Your task to perform on an android device: add a contact in the contacts app Image 0: 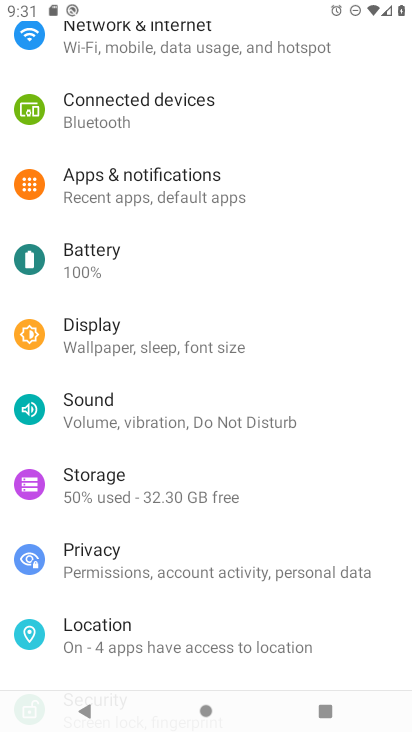
Step 0: press home button
Your task to perform on an android device: add a contact in the contacts app Image 1: 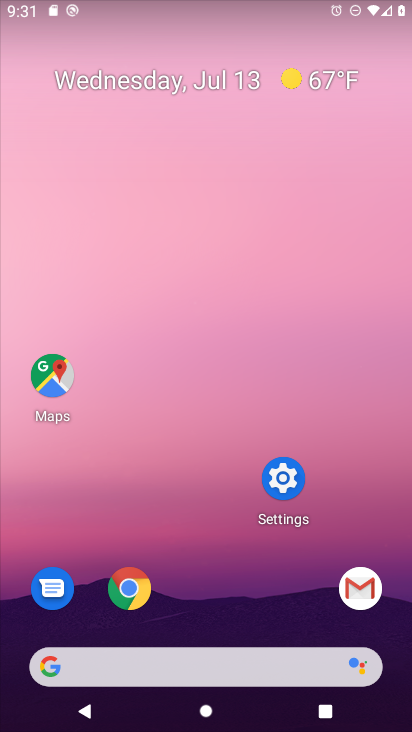
Step 1: drag from (267, 665) to (97, 153)
Your task to perform on an android device: add a contact in the contacts app Image 2: 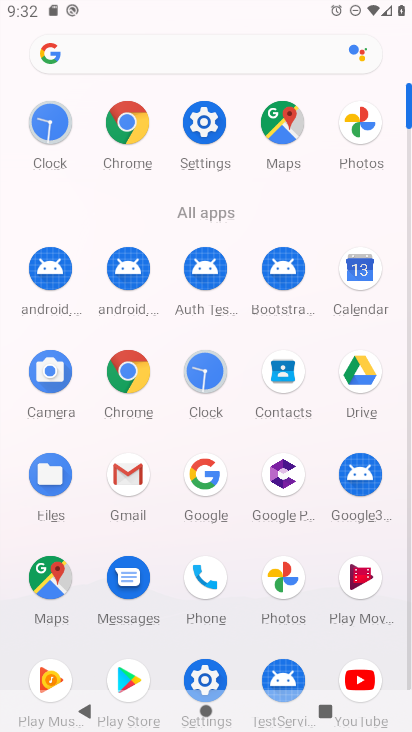
Step 2: click (196, 579)
Your task to perform on an android device: add a contact in the contacts app Image 3: 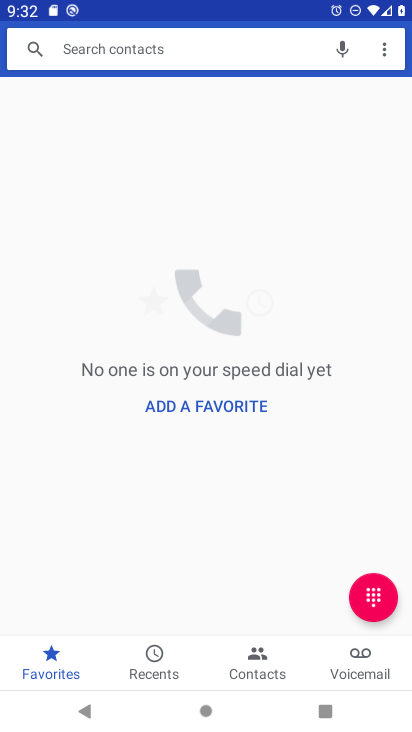
Step 3: click (263, 655)
Your task to perform on an android device: add a contact in the contacts app Image 4: 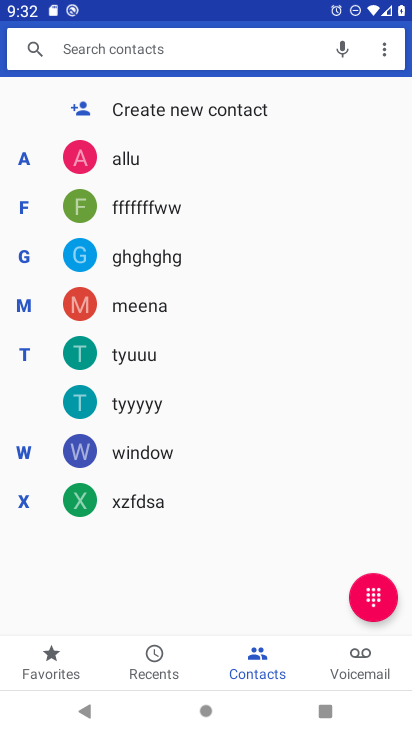
Step 4: click (163, 110)
Your task to perform on an android device: add a contact in the contacts app Image 5: 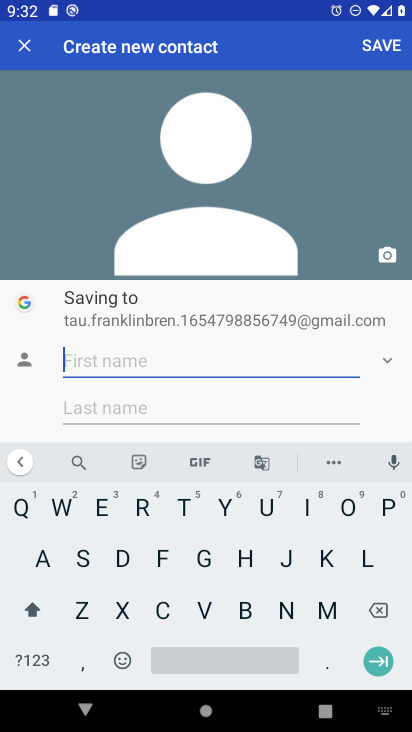
Step 5: click (131, 505)
Your task to perform on an android device: add a contact in the contacts app Image 6: 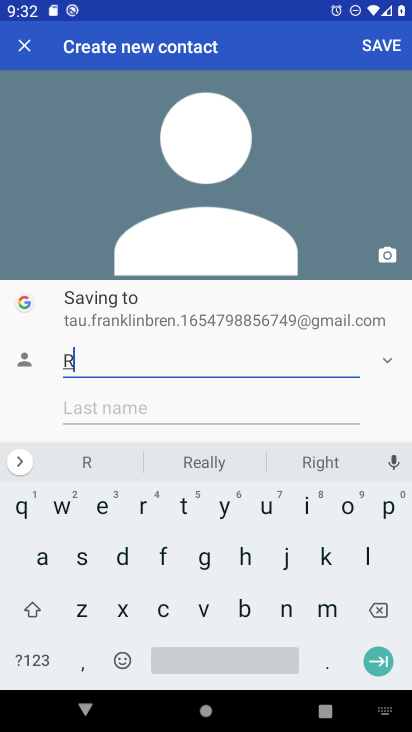
Step 6: click (118, 610)
Your task to perform on an android device: add a contact in the contacts app Image 7: 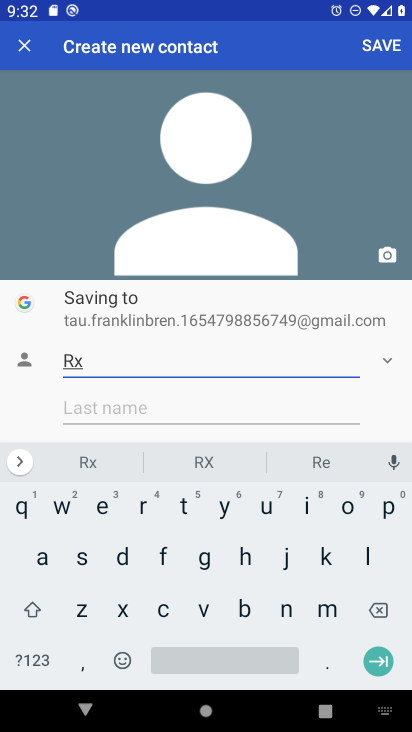
Step 7: drag from (121, 421) to (113, 312)
Your task to perform on an android device: add a contact in the contacts app Image 8: 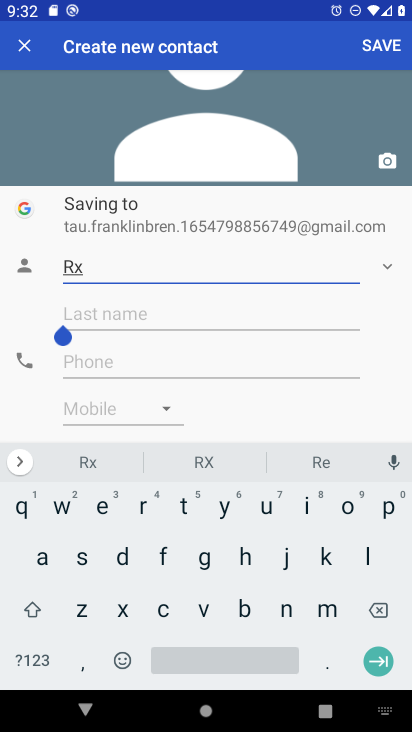
Step 8: click (101, 367)
Your task to perform on an android device: add a contact in the contacts app Image 9: 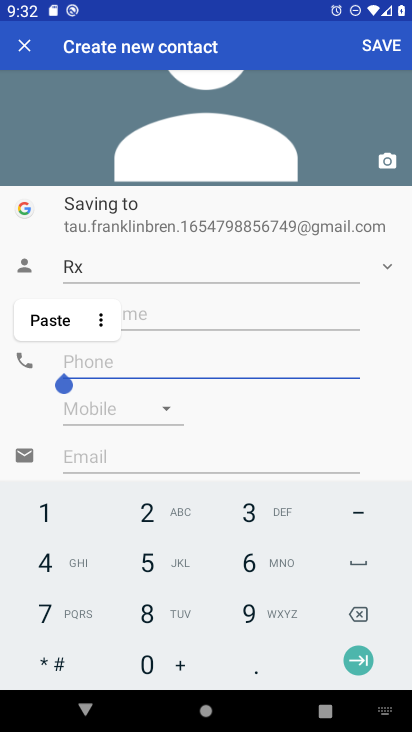
Step 9: click (164, 567)
Your task to perform on an android device: add a contact in the contacts app Image 10: 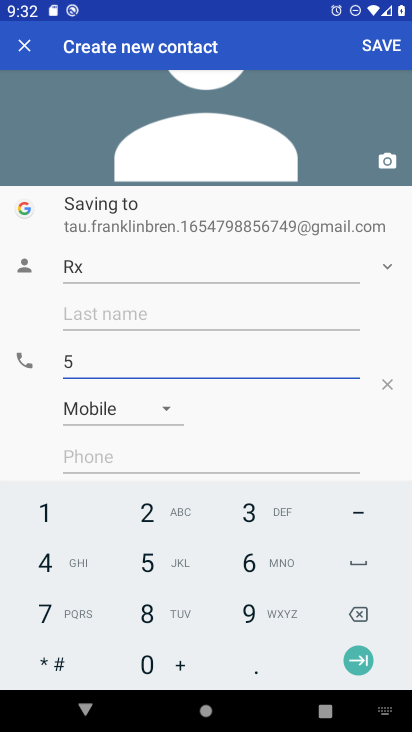
Step 10: click (70, 550)
Your task to perform on an android device: add a contact in the contacts app Image 11: 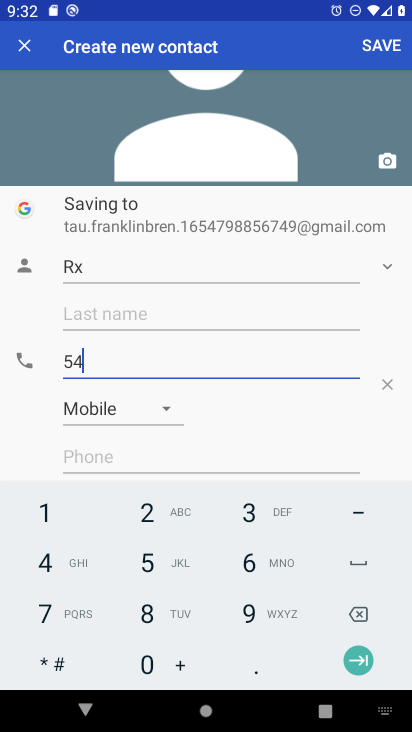
Step 11: click (44, 510)
Your task to perform on an android device: add a contact in the contacts app Image 12: 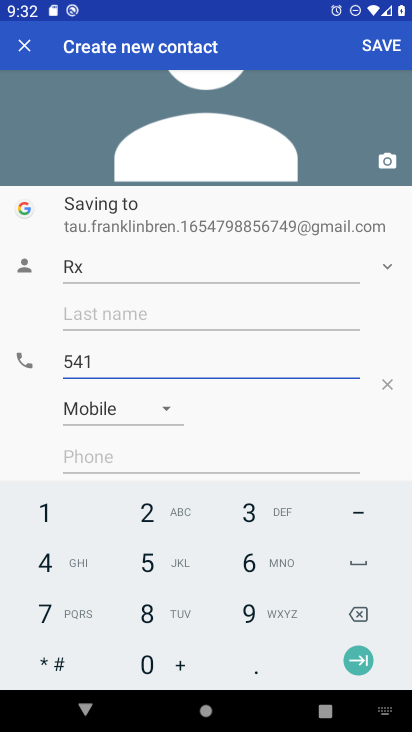
Step 12: click (267, 535)
Your task to perform on an android device: add a contact in the contacts app Image 13: 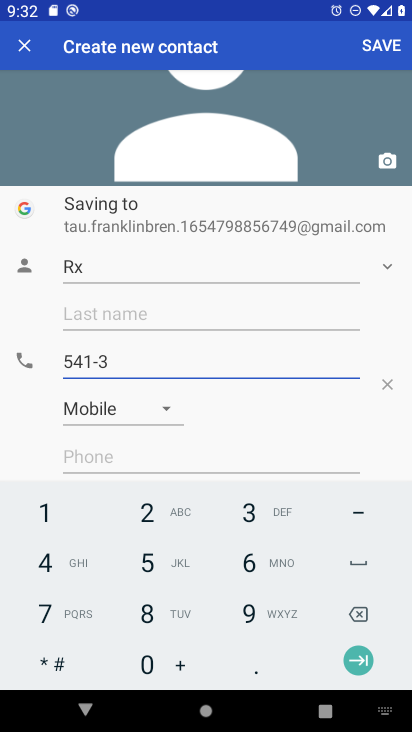
Step 13: click (252, 619)
Your task to perform on an android device: add a contact in the contacts app Image 14: 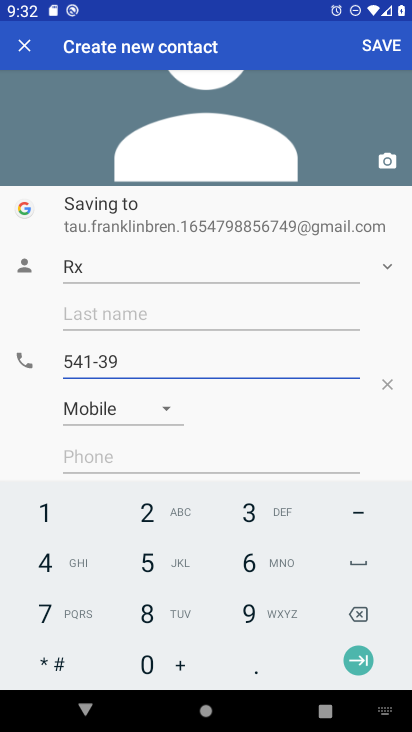
Step 14: click (191, 624)
Your task to perform on an android device: add a contact in the contacts app Image 15: 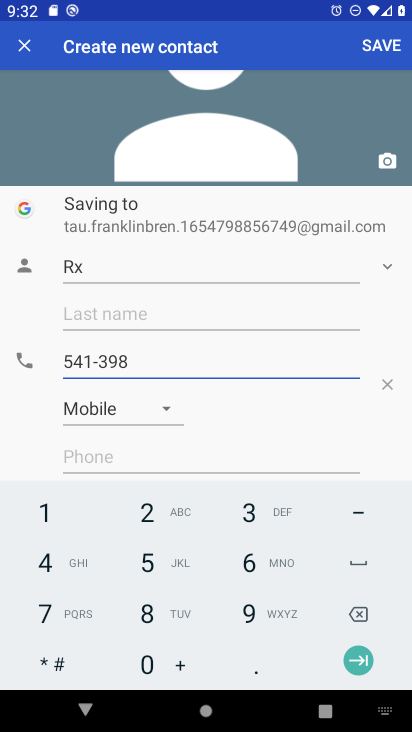
Step 15: click (250, 517)
Your task to perform on an android device: add a contact in the contacts app Image 16: 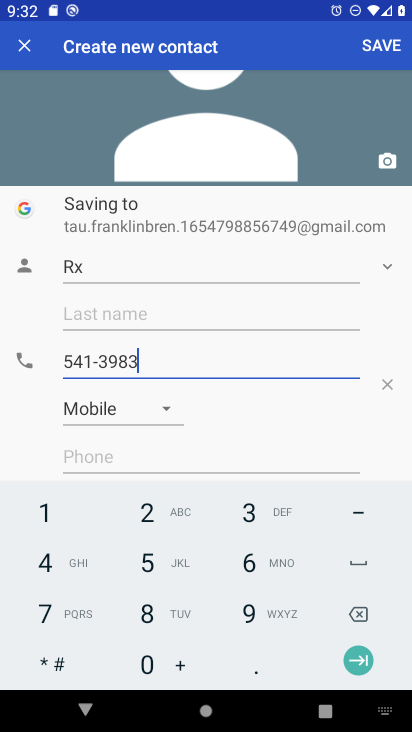
Step 16: click (371, 48)
Your task to perform on an android device: add a contact in the contacts app Image 17: 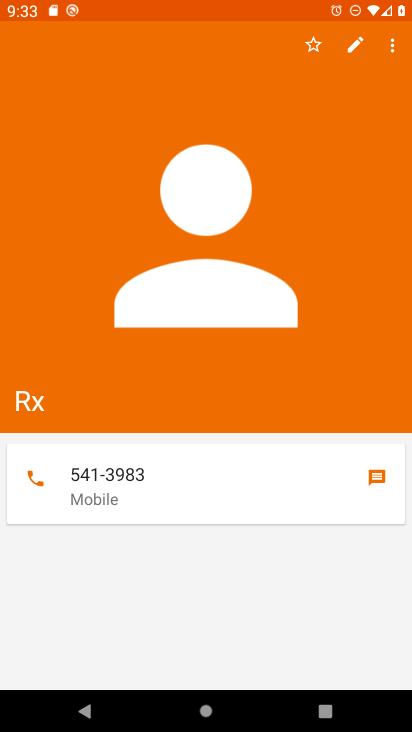
Step 17: task complete